Your task to perform on an android device: What is the news today? Image 0: 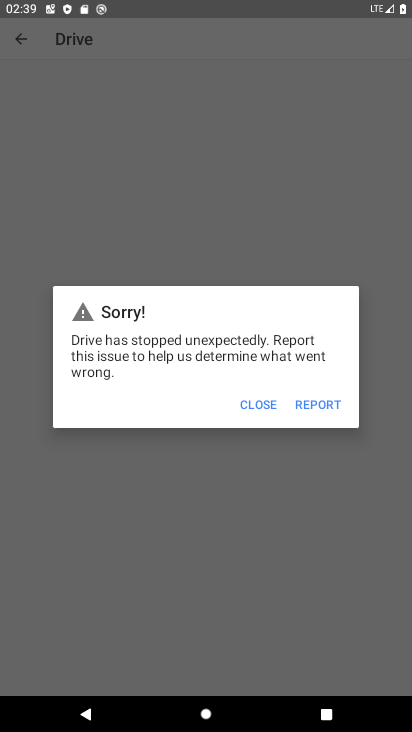
Step 0: drag from (207, 643) to (150, 215)
Your task to perform on an android device: What is the news today? Image 1: 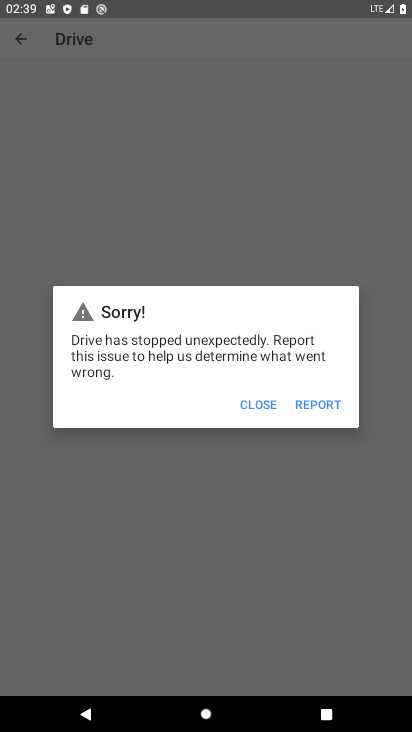
Step 1: press home button
Your task to perform on an android device: What is the news today? Image 2: 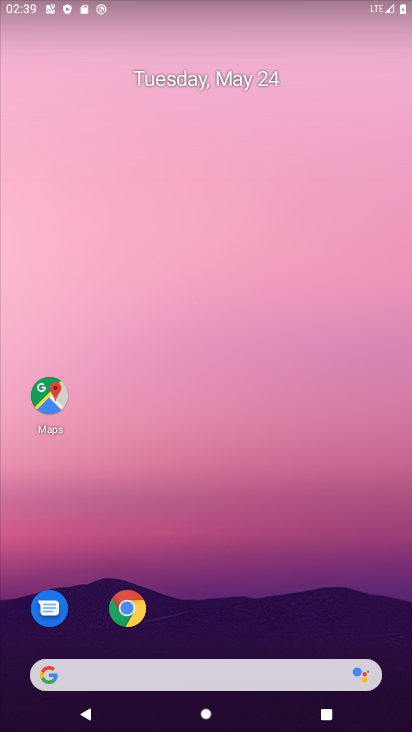
Step 2: drag from (238, 607) to (165, 238)
Your task to perform on an android device: What is the news today? Image 3: 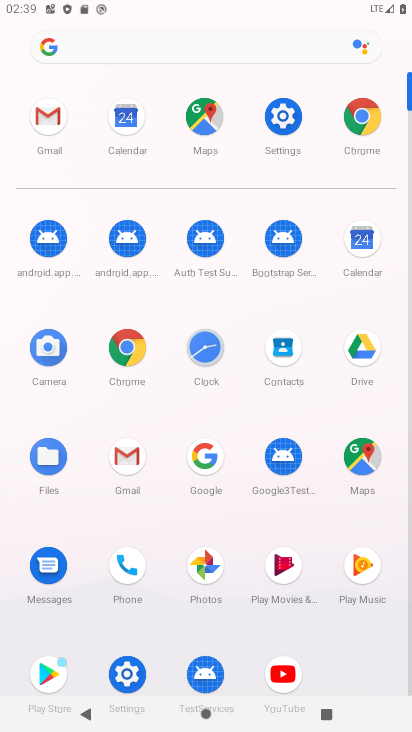
Step 3: click (198, 466)
Your task to perform on an android device: What is the news today? Image 4: 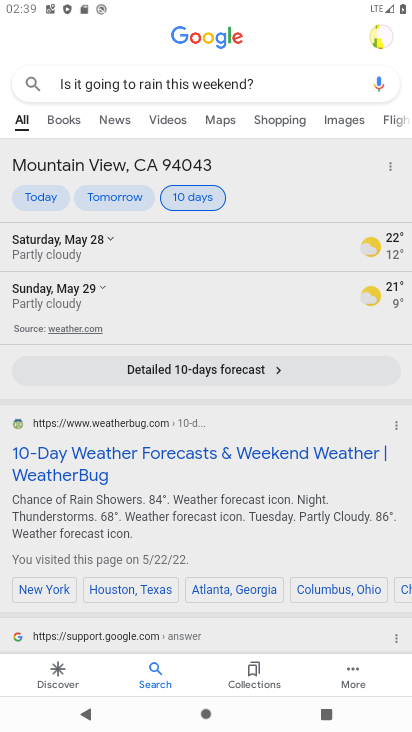
Step 4: click (318, 78)
Your task to perform on an android device: What is the news today? Image 5: 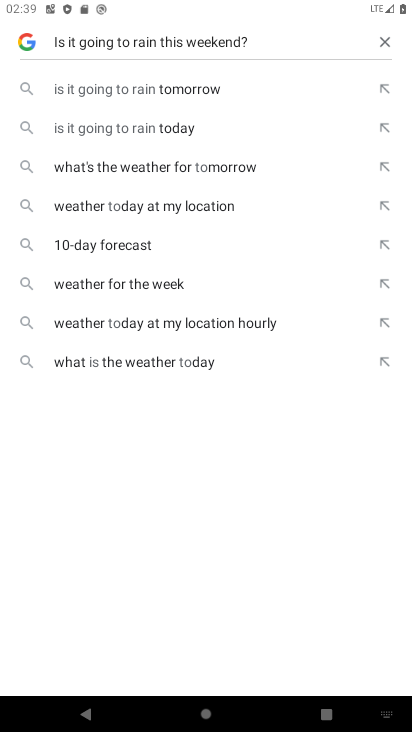
Step 5: click (380, 46)
Your task to perform on an android device: What is the news today? Image 6: 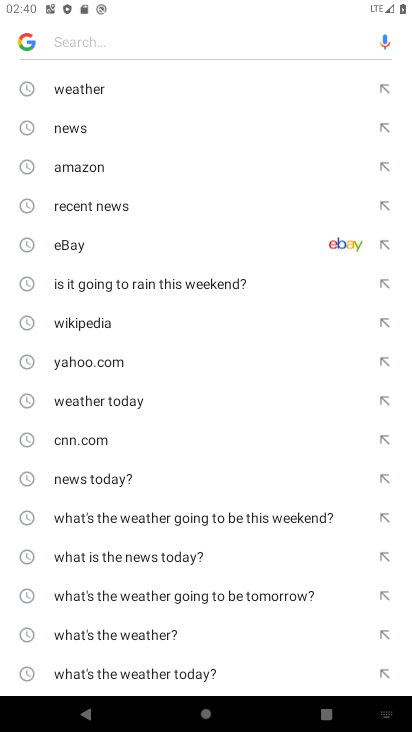
Step 6: type "What is the news today?"
Your task to perform on an android device: What is the news today? Image 7: 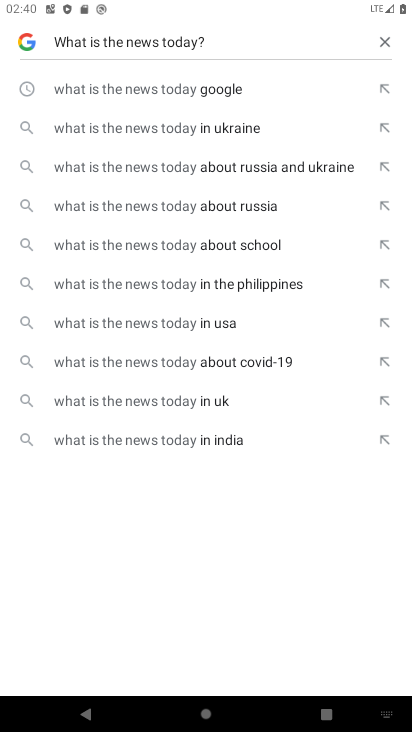
Step 7: click (234, 94)
Your task to perform on an android device: What is the news today? Image 8: 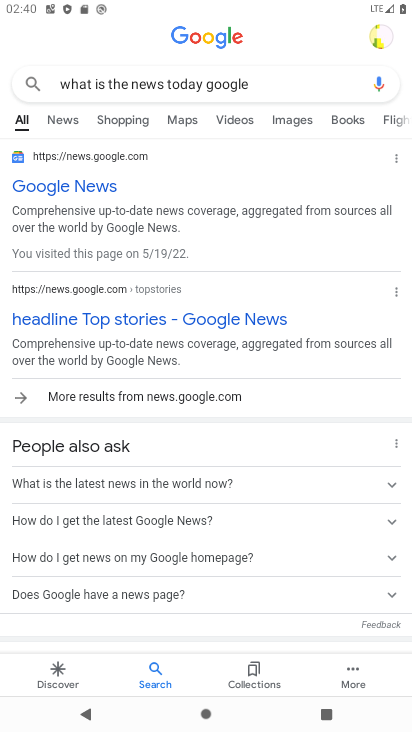
Step 8: click (101, 186)
Your task to perform on an android device: What is the news today? Image 9: 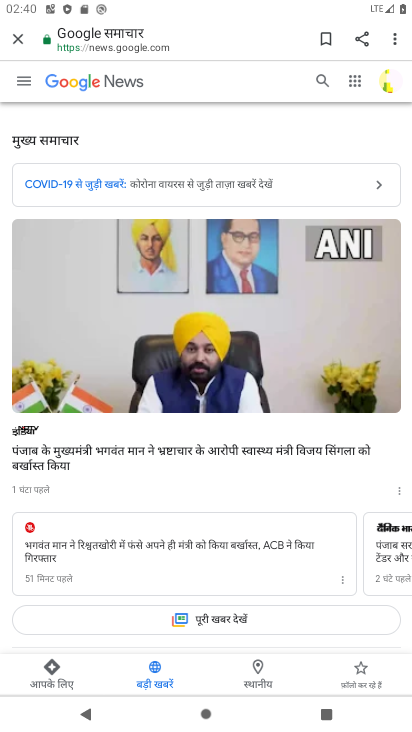
Step 9: task complete